Your task to perform on an android device: What's the weather going to be this weekend? Image 0: 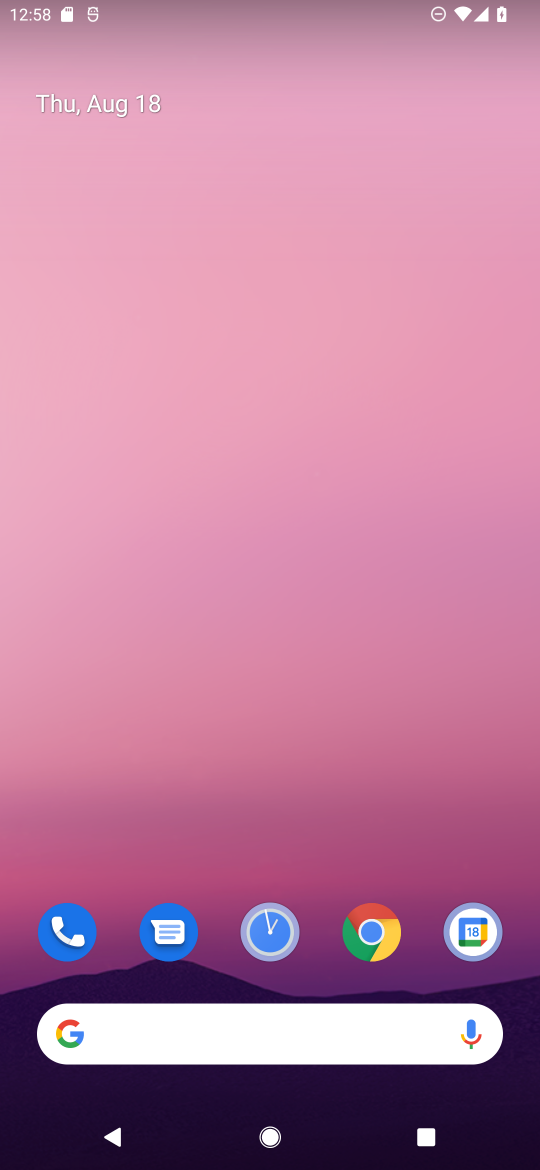
Step 0: click (131, 1022)
Your task to perform on an android device: What's the weather going to be this weekend? Image 1: 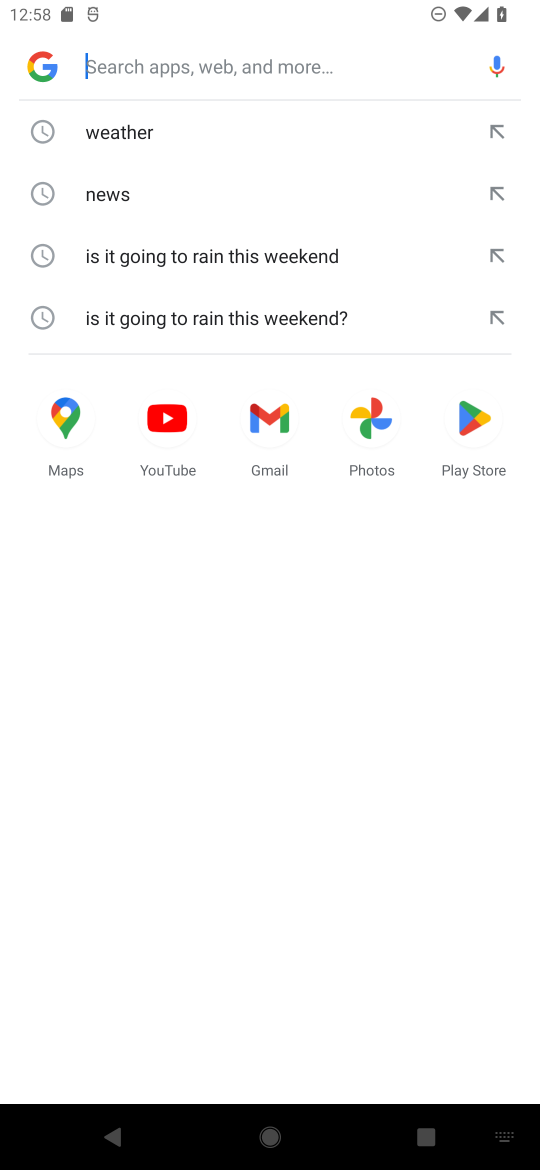
Step 1: click (108, 117)
Your task to perform on an android device: What's the weather going to be this weekend? Image 2: 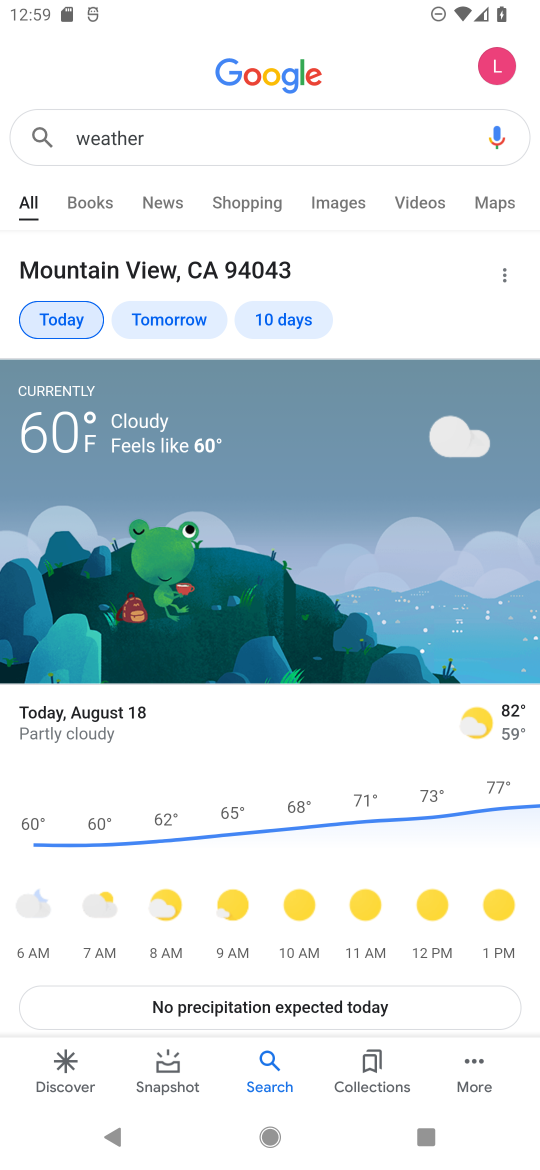
Step 2: click (285, 323)
Your task to perform on an android device: What's the weather going to be this weekend? Image 3: 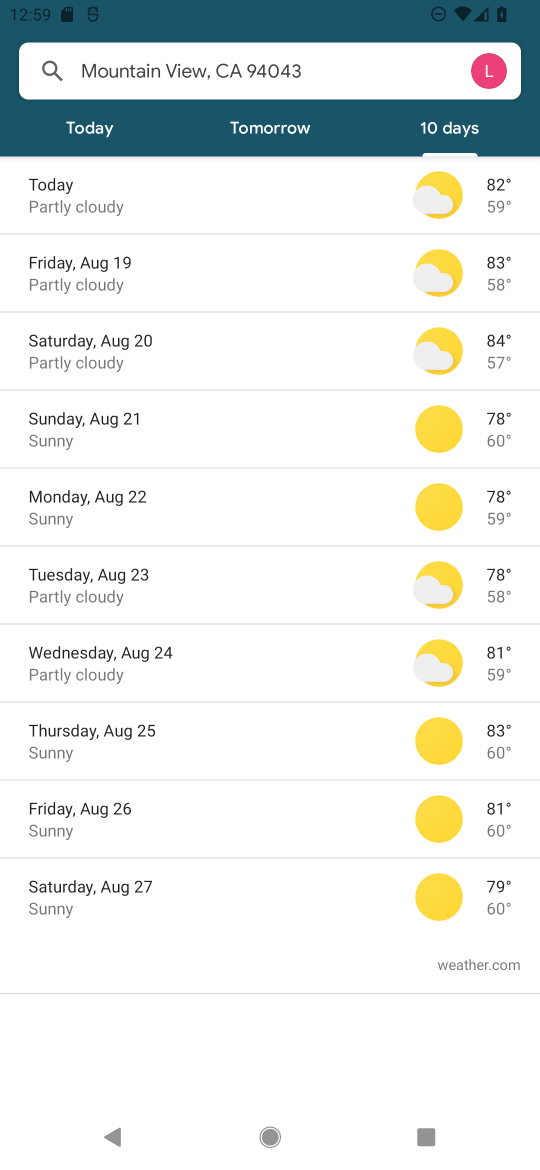
Step 3: task complete